Your task to perform on an android device: see creations saved in the google photos Image 0: 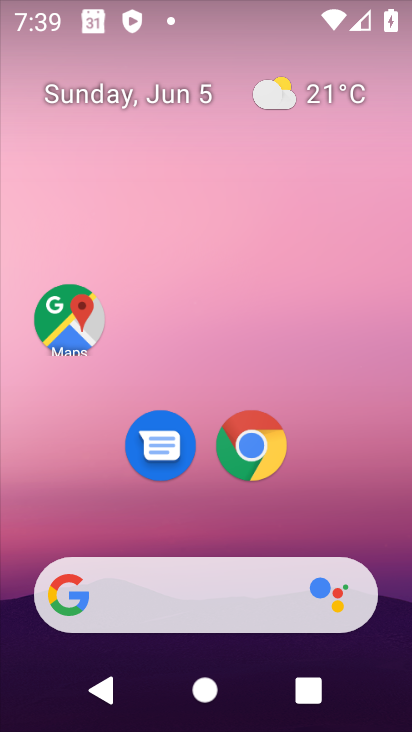
Step 0: drag from (335, 505) to (276, 144)
Your task to perform on an android device: see creations saved in the google photos Image 1: 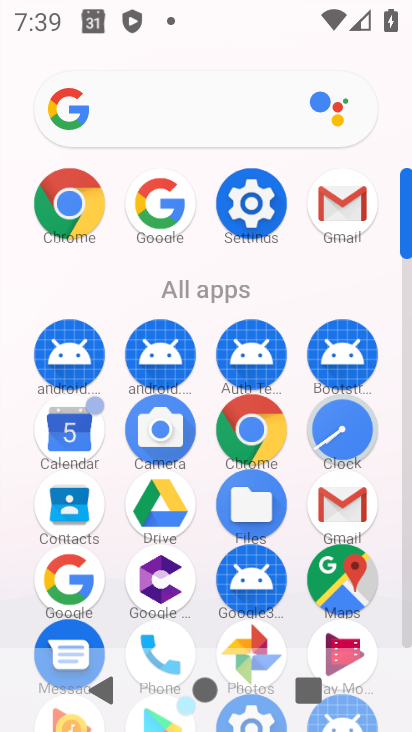
Step 1: drag from (116, 615) to (91, 331)
Your task to perform on an android device: see creations saved in the google photos Image 2: 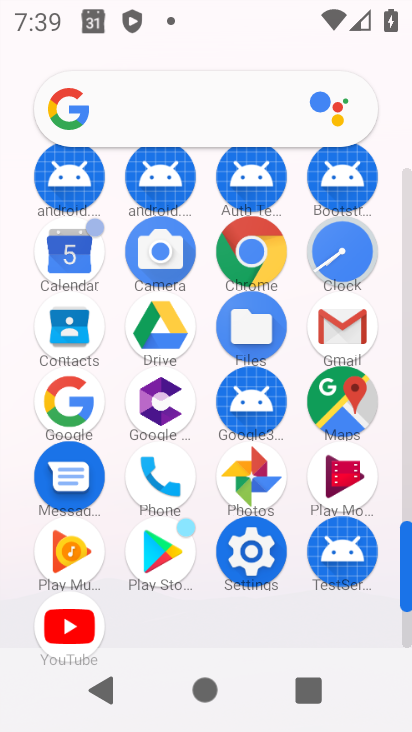
Step 2: click (246, 485)
Your task to perform on an android device: see creations saved in the google photos Image 3: 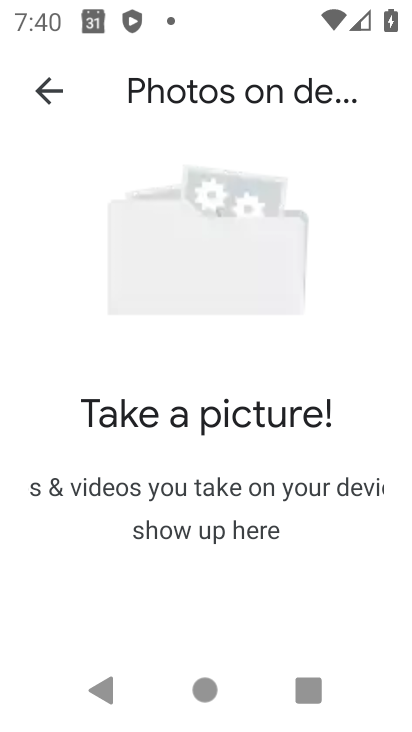
Step 3: click (36, 90)
Your task to perform on an android device: see creations saved in the google photos Image 4: 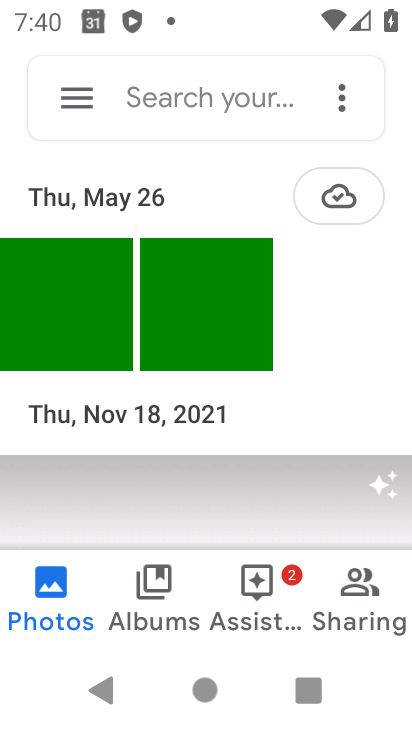
Step 4: click (258, 576)
Your task to perform on an android device: see creations saved in the google photos Image 5: 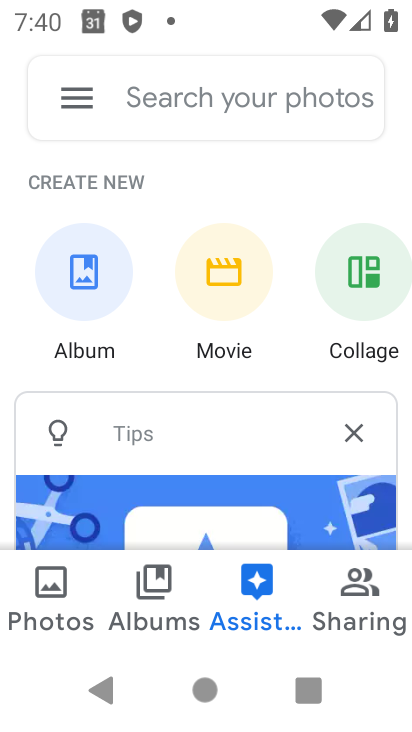
Step 5: task complete